Your task to perform on an android device: turn on location history Image 0: 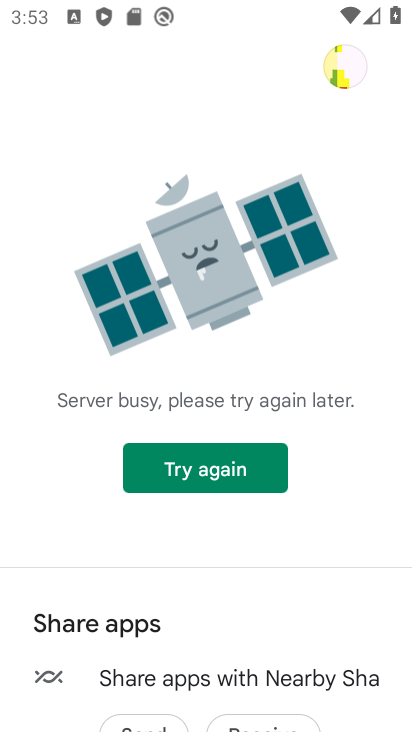
Step 0: press home button
Your task to perform on an android device: turn on location history Image 1: 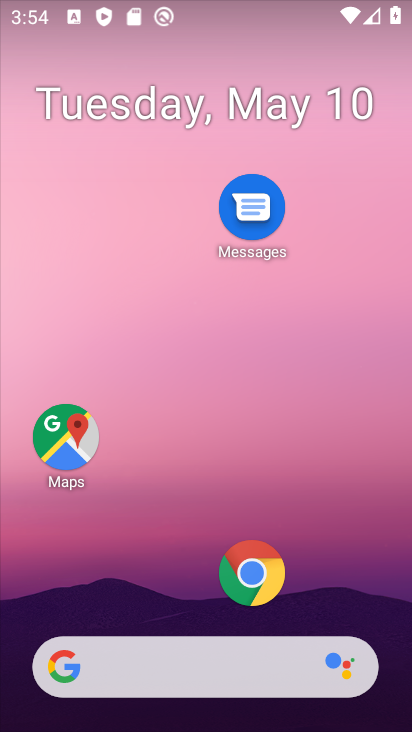
Step 1: drag from (203, 617) to (203, 271)
Your task to perform on an android device: turn on location history Image 2: 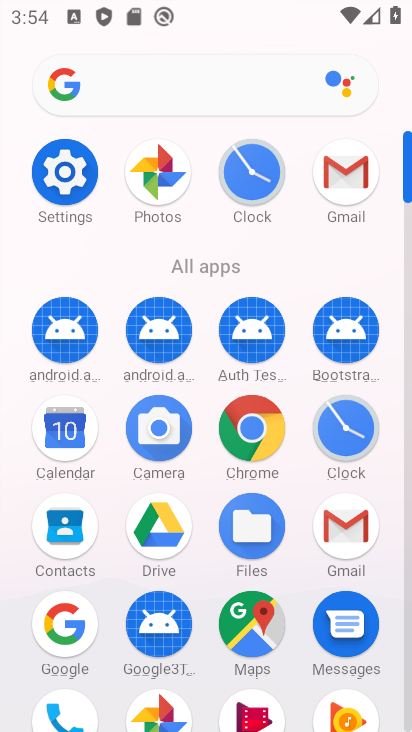
Step 2: drag from (101, 587) to (110, 264)
Your task to perform on an android device: turn on location history Image 3: 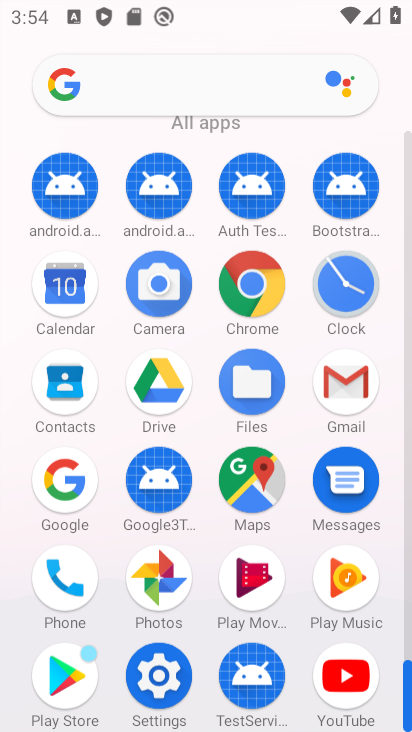
Step 3: click (149, 647)
Your task to perform on an android device: turn on location history Image 4: 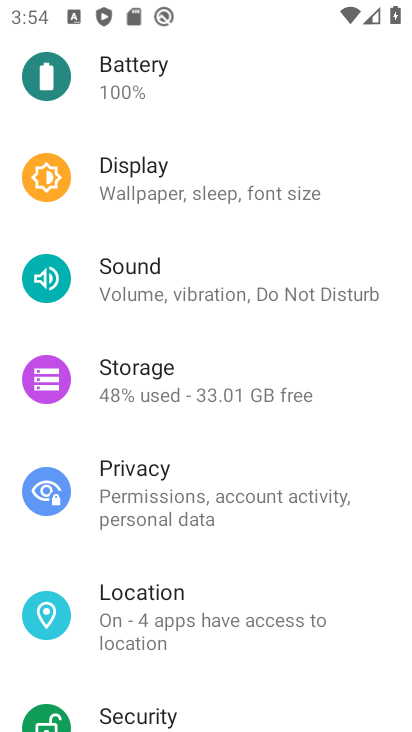
Step 4: click (175, 631)
Your task to perform on an android device: turn on location history Image 5: 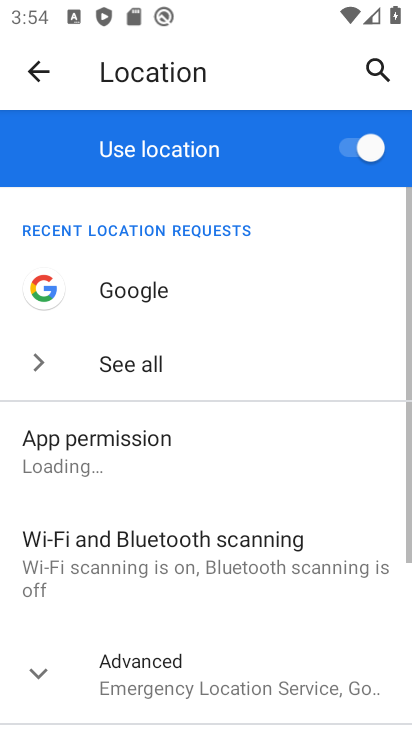
Step 5: drag from (175, 631) to (203, 426)
Your task to perform on an android device: turn on location history Image 6: 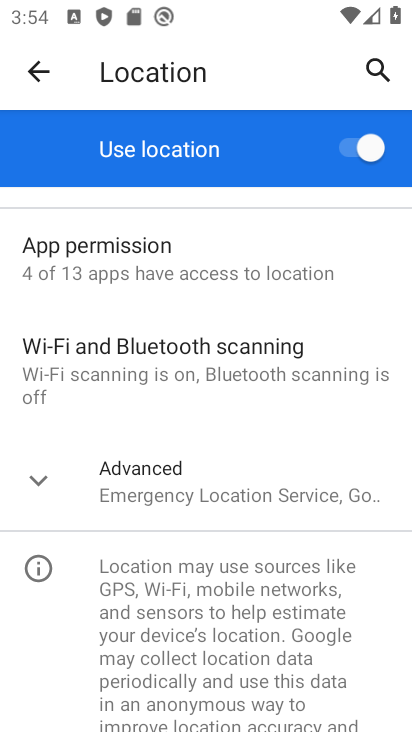
Step 6: click (172, 484)
Your task to perform on an android device: turn on location history Image 7: 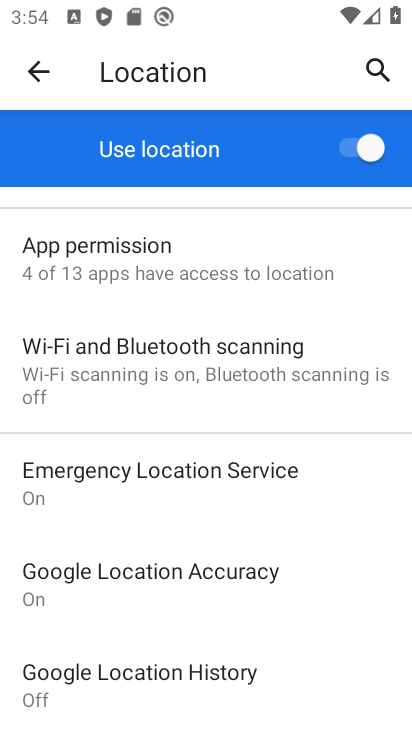
Step 7: click (172, 672)
Your task to perform on an android device: turn on location history Image 8: 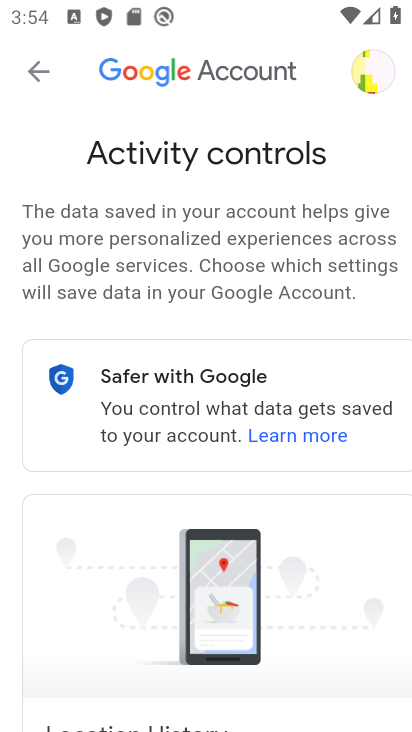
Step 8: task complete